Your task to perform on an android device: Open Yahoo.com Image 0: 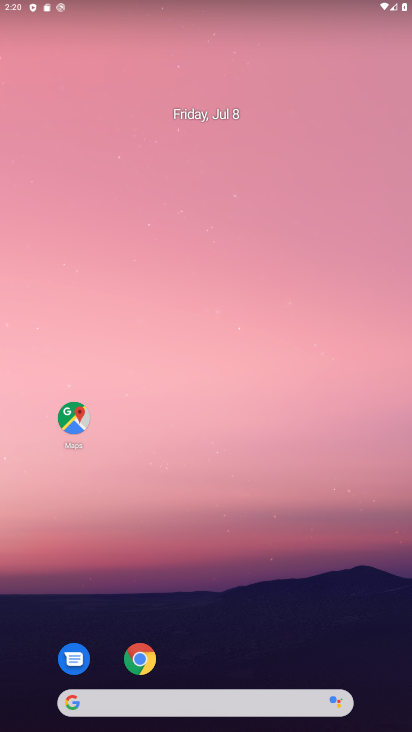
Step 0: drag from (201, 586) to (197, 1)
Your task to perform on an android device: Open Yahoo.com Image 1: 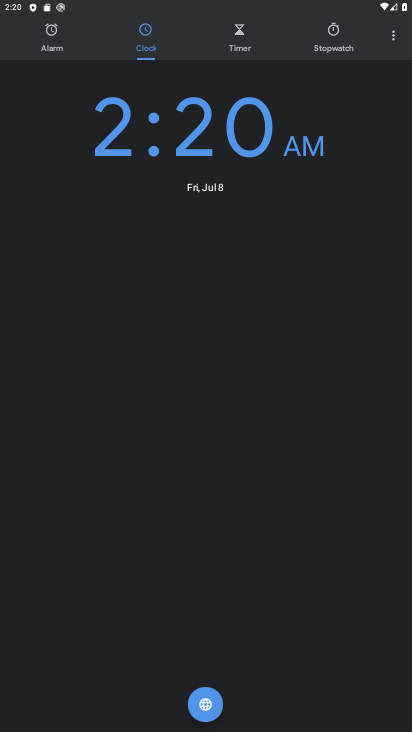
Step 1: press home button
Your task to perform on an android device: Open Yahoo.com Image 2: 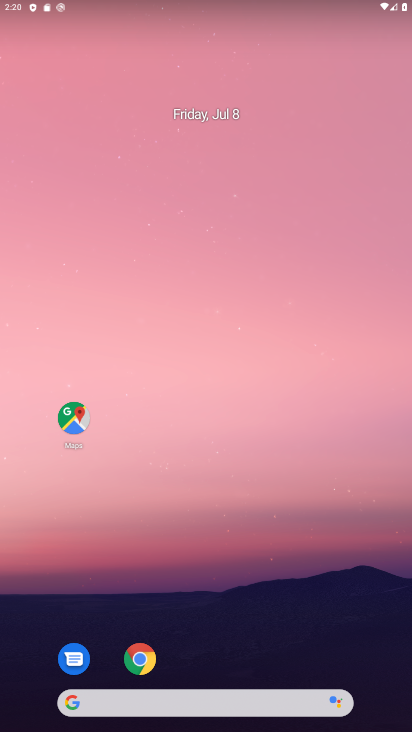
Step 2: click (140, 649)
Your task to perform on an android device: Open Yahoo.com Image 3: 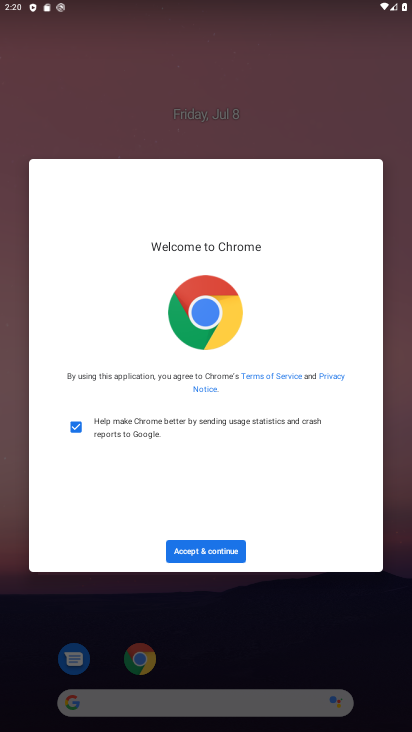
Step 3: click (203, 550)
Your task to perform on an android device: Open Yahoo.com Image 4: 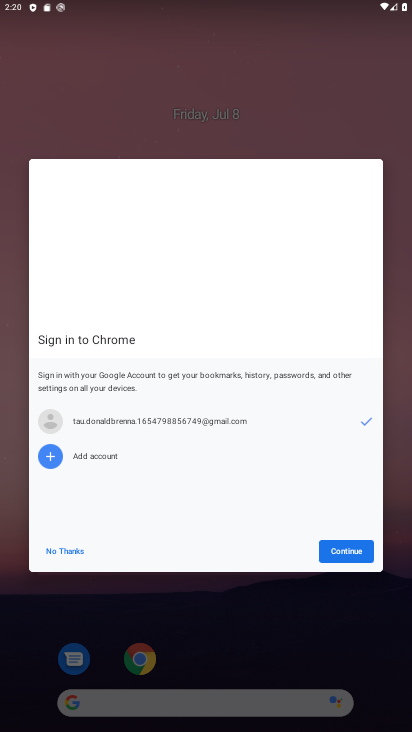
Step 4: click (361, 549)
Your task to perform on an android device: Open Yahoo.com Image 5: 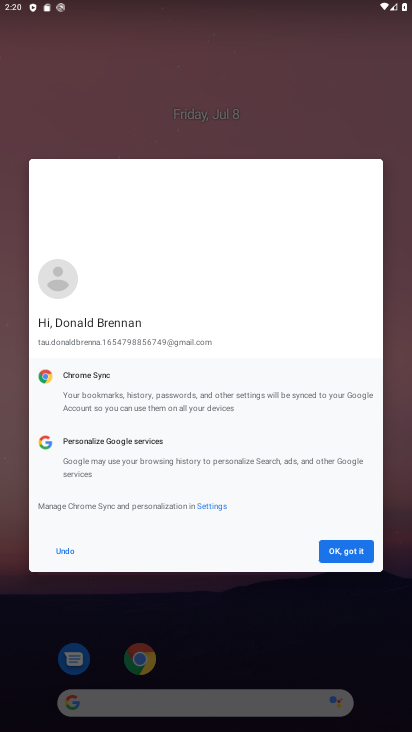
Step 5: click (346, 552)
Your task to perform on an android device: Open Yahoo.com Image 6: 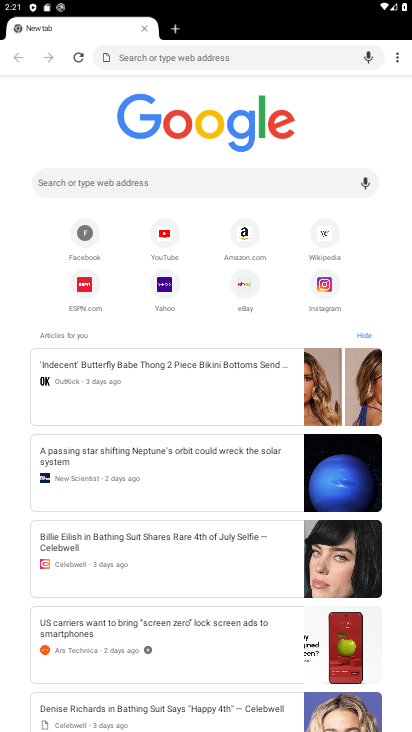
Step 6: click (164, 285)
Your task to perform on an android device: Open Yahoo.com Image 7: 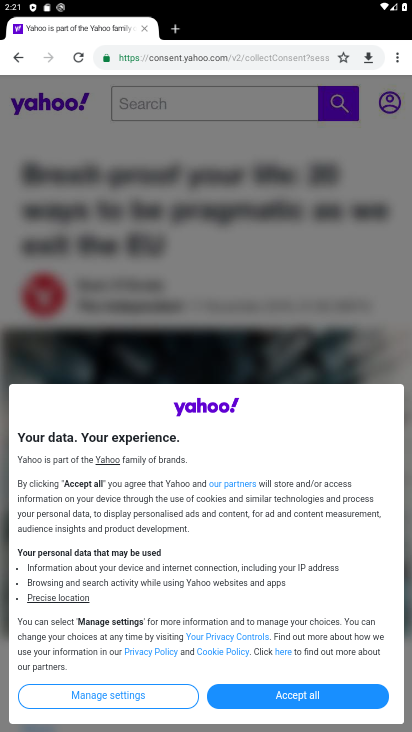
Step 7: click (296, 699)
Your task to perform on an android device: Open Yahoo.com Image 8: 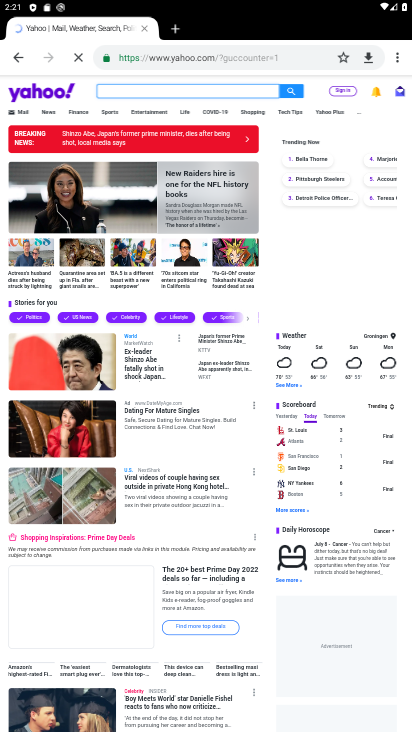
Step 8: task complete